Your task to perform on an android device: toggle sleep mode Image 0: 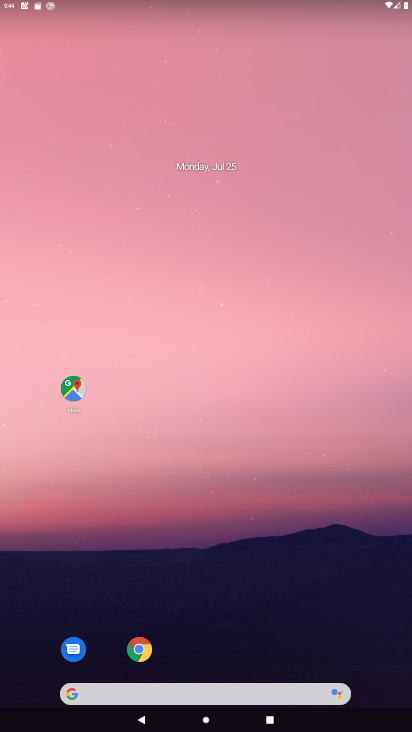
Step 0: drag from (193, 659) to (134, 38)
Your task to perform on an android device: toggle sleep mode Image 1: 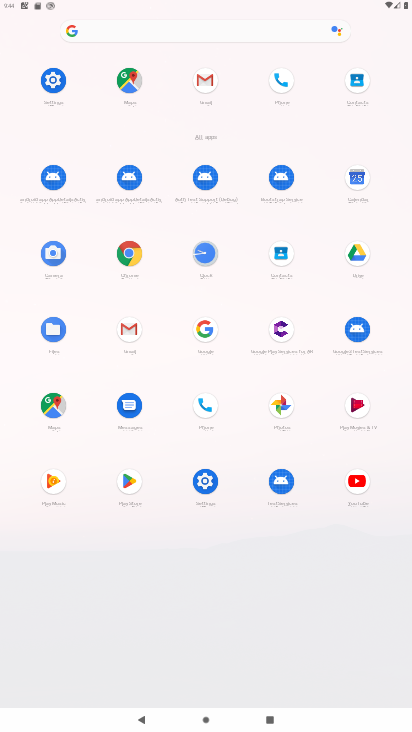
Step 1: click (210, 488)
Your task to perform on an android device: toggle sleep mode Image 2: 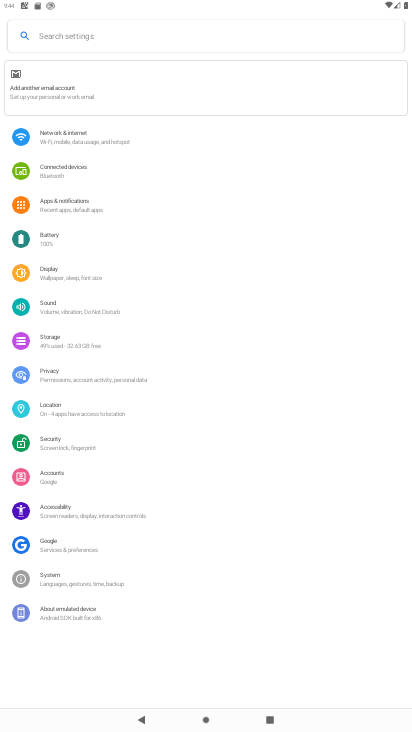
Step 2: click (158, 26)
Your task to perform on an android device: toggle sleep mode Image 3: 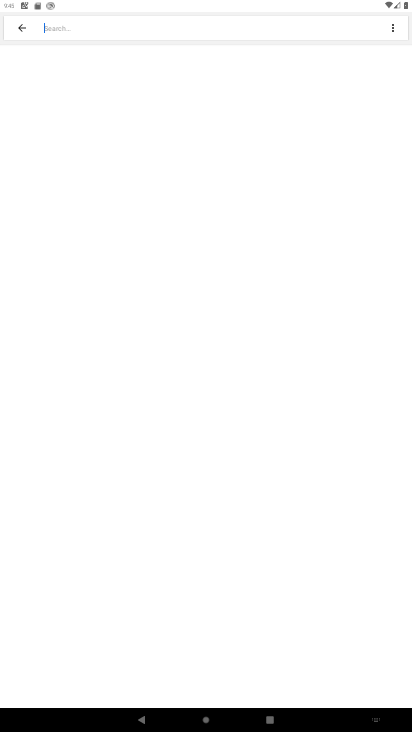
Step 3: type "sleep mode"
Your task to perform on an android device: toggle sleep mode Image 4: 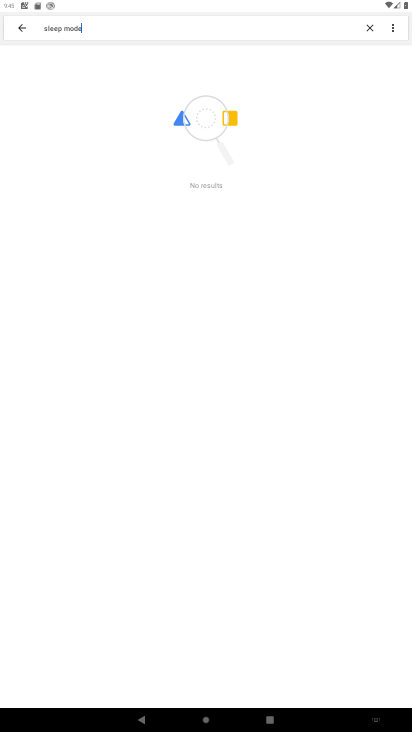
Step 4: task complete